Your task to perform on an android device: check the backup settings in the google photos Image 0: 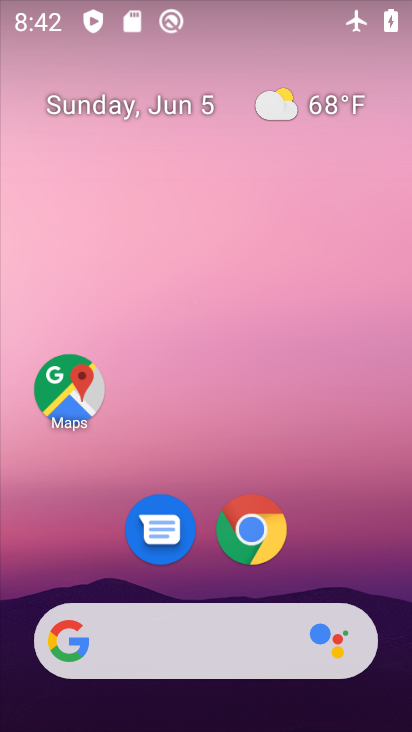
Step 0: drag from (164, 700) to (245, 25)
Your task to perform on an android device: check the backup settings in the google photos Image 1: 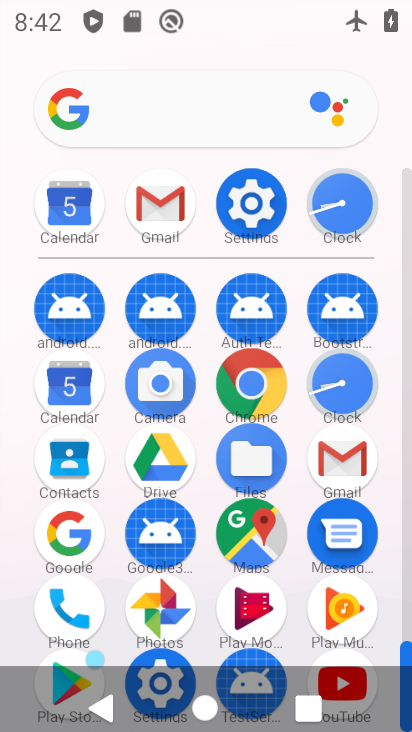
Step 1: click (144, 611)
Your task to perform on an android device: check the backup settings in the google photos Image 2: 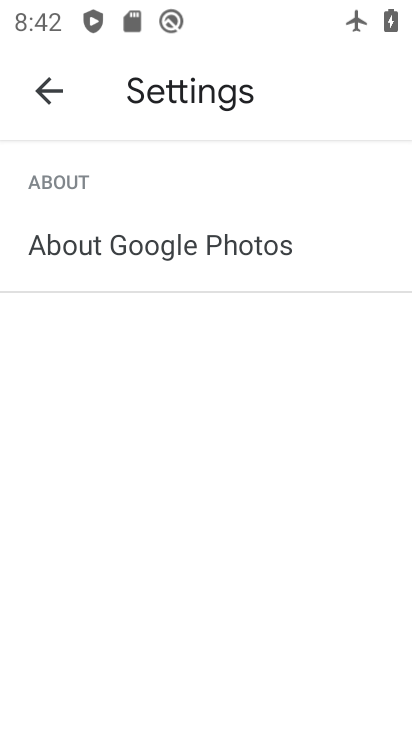
Step 2: click (44, 102)
Your task to perform on an android device: check the backup settings in the google photos Image 3: 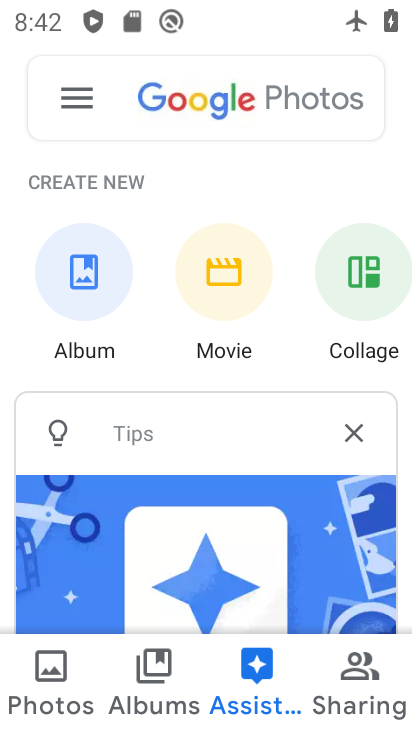
Step 3: click (86, 102)
Your task to perform on an android device: check the backup settings in the google photos Image 4: 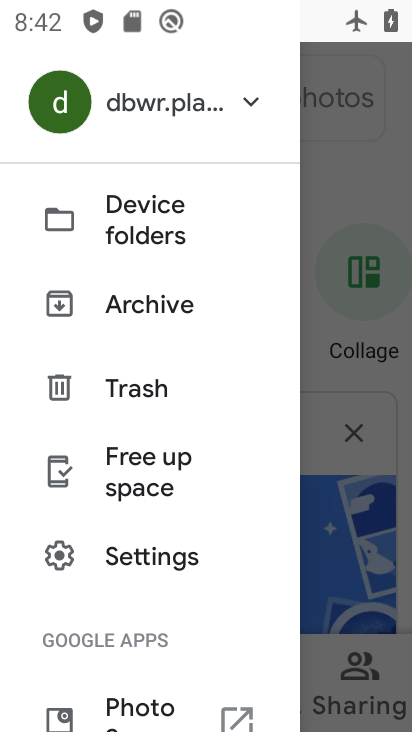
Step 4: drag from (208, 545) to (266, 7)
Your task to perform on an android device: check the backup settings in the google photos Image 5: 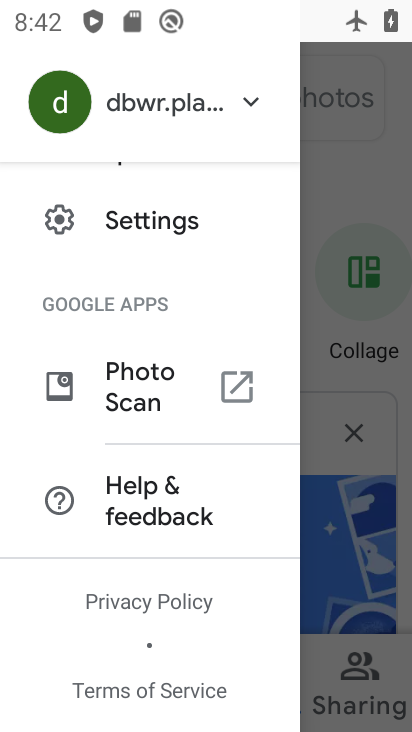
Step 5: click (146, 237)
Your task to perform on an android device: check the backup settings in the google photos Image 6: 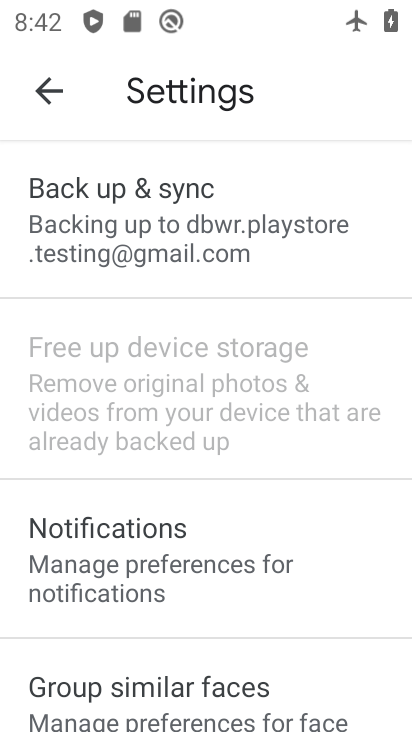
Step 6: click (202, 202)
Your task to perform on an android device: check the backup settings in the google photos Image 7: 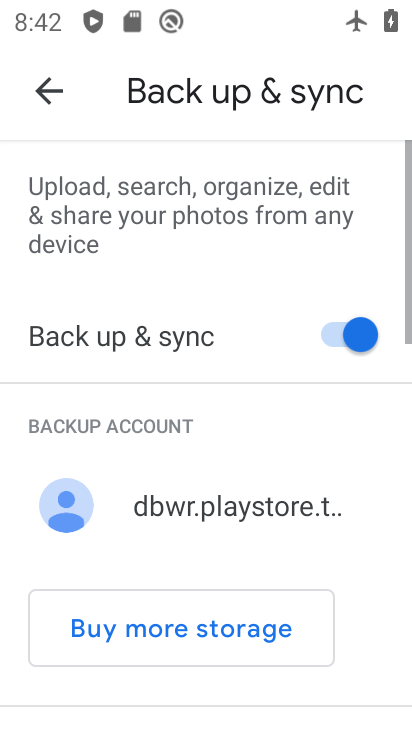
Step 7: task complete